Your task to perform on an android device: turn pop-ups on in chrome Image 0: 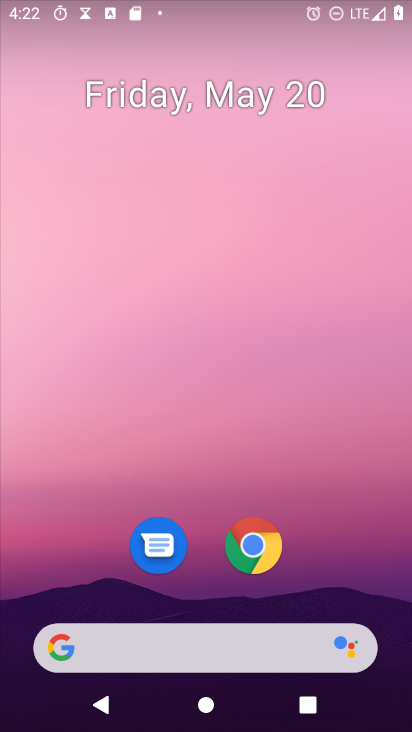
Step 0: drag from (346, 627) to (354, 1)
Your task to perform on an android device: turn pop-ups on in chrome Image 1: 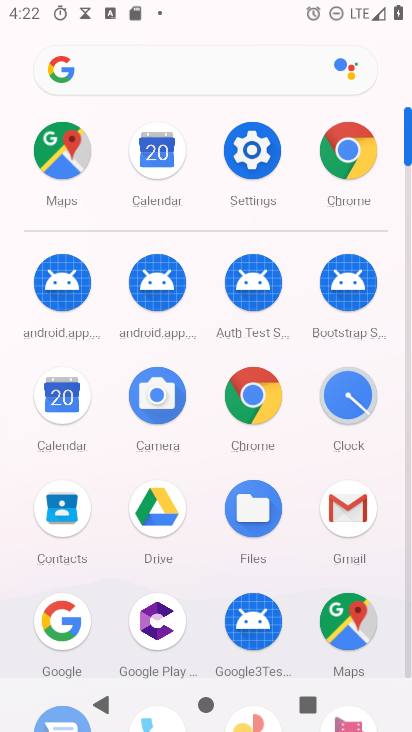
Step 1: click (252, 388)
Your task to perform on an android device: turn pop-ups on in chrome Image 2: 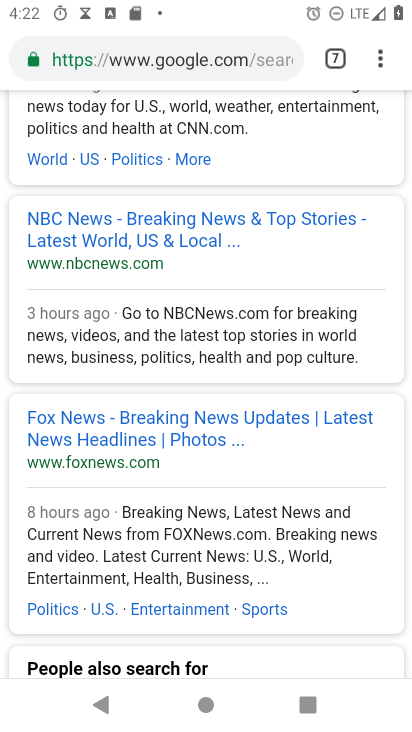
Step 2: drag from (382, 50) to (192, 658)
Your task to perform on an android device: turn pop-ups on in chrome Image 3: 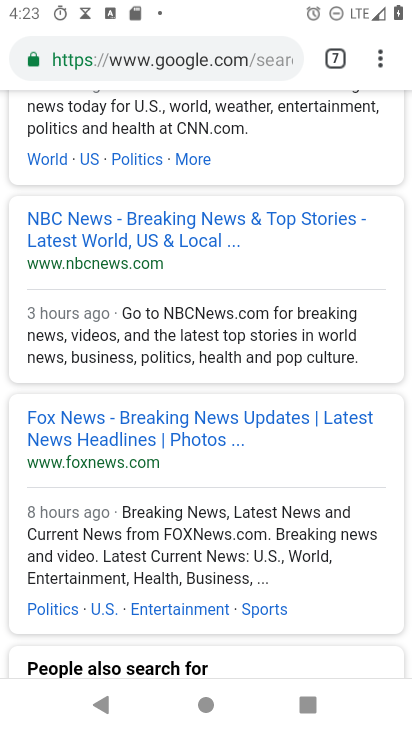
Step 3: drag from (381, 90) to (183, 568)
Your task to perform on an android device: turn pop-ups on in chrome Image 4: 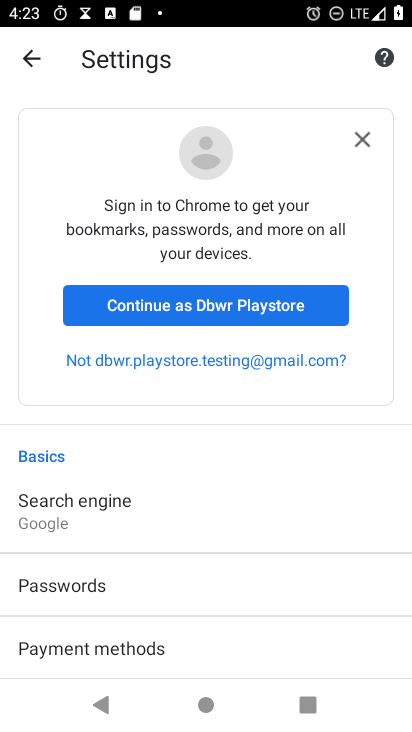
Step 4: drag from (216, 706) to (329, 132)
Your task to perform on an android device: turn pop-ups on in chrome Image 5: 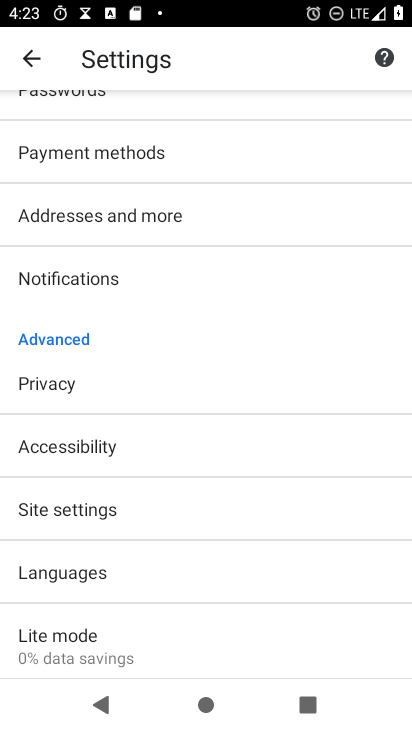
Step 5: click (135, 510)
Your task to perform on an android device: turn pop-ups on in chrome Image 6: 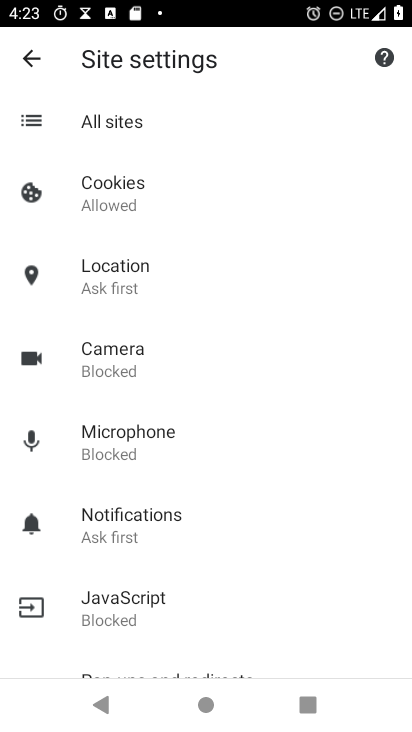
Step 6: drag from (186, 611) to (190, 127)
Your task to perform on an android device: turn pop-ups on in chrome Image 7: 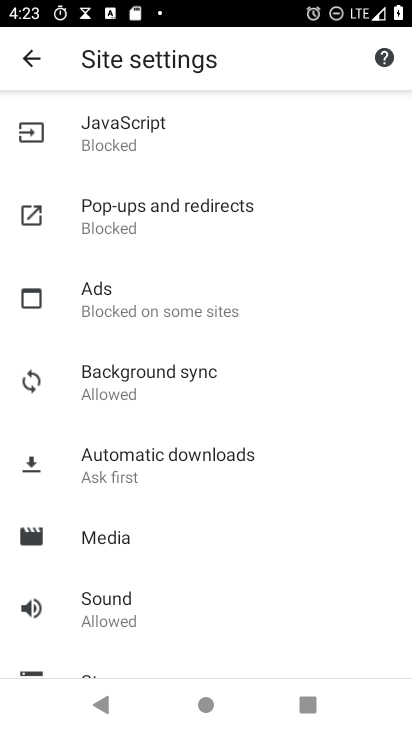
Step 7: click (150, 224)
Your task to perform on an android device: turn pop-ups on in chrome Image 8: 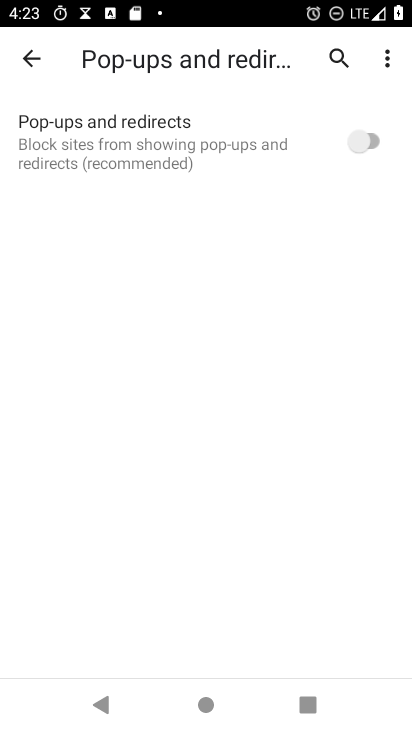
Step 8: click (369, 139)
Your task to perform on an android device: turn pop-ups on in chrome Image 9: 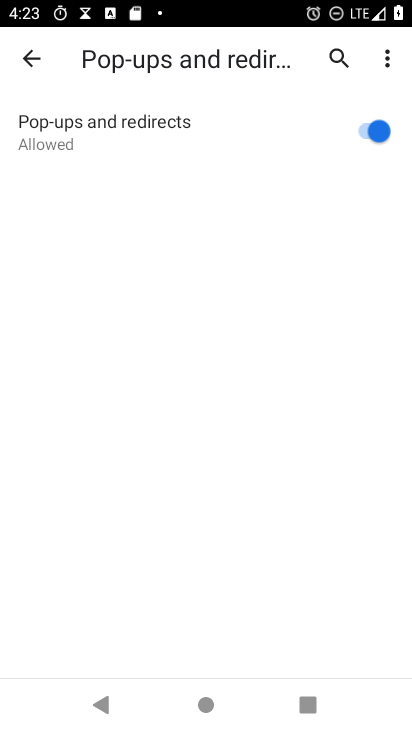
Step 9: task complete